Your task to perform on an android device: Go to network settings Image 0: 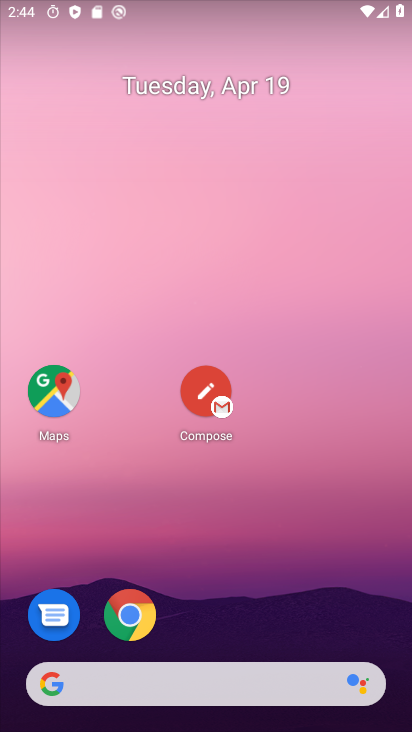
Step 0: drag from (253, 656) to (229, 4)
Your task to perform on an android device: Go to network settings Image 1: 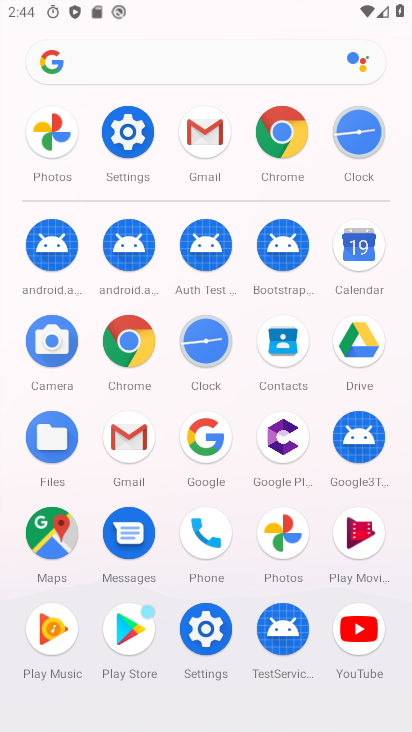
Step 1: click (218, 627)
Your task to perform on an android device: Go to network settings Image 2: 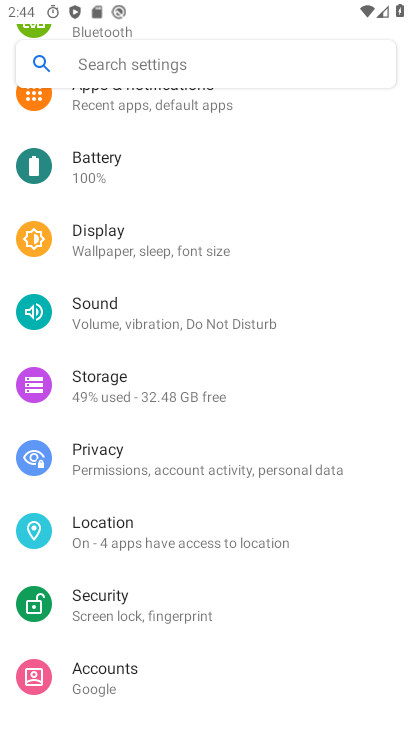
Step 2: drag from (199, 604) to (177, 662)
Your task to perform on an android device: Go to network settings Image 3: 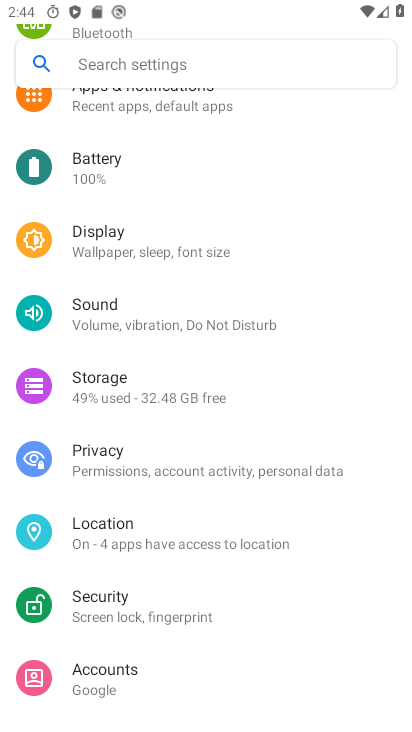
Step 3: drag from (179, 280) to (193, 726)
Your task to perform on an android device: Go to network settings Image 4: 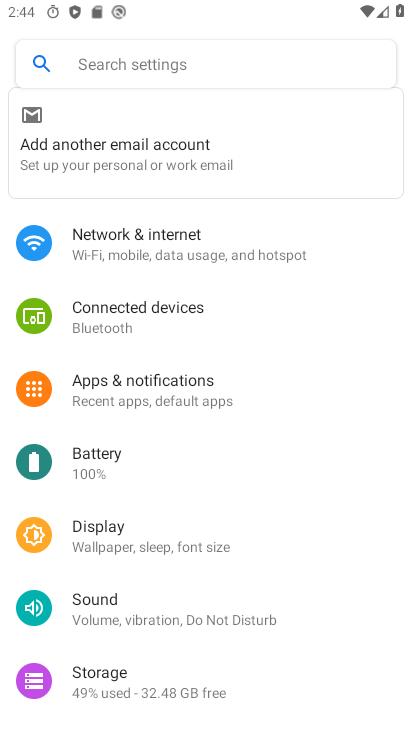
Step 4: click (146, 253)
Your task to perform on an android device: Go to network settings Image 5: 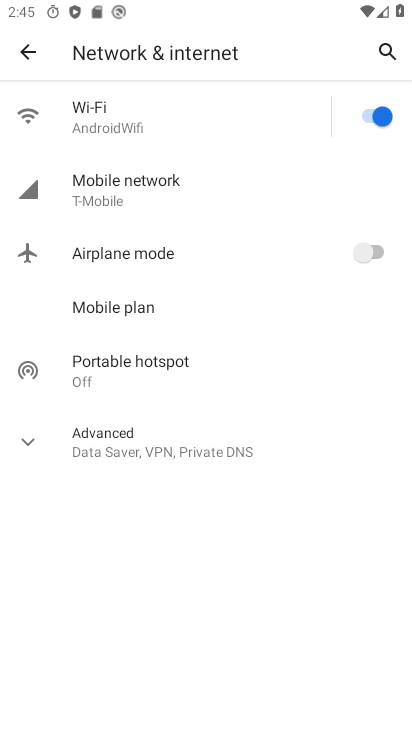
Step 5: click (131, 181)
Your task to perform on an android device: Go to network settings Image 6: 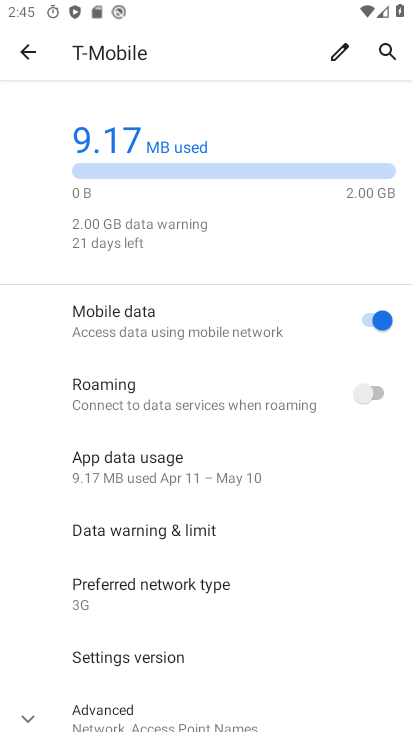
Step 6: task complete